Your task to perform on an android device: check battery use Image 0: 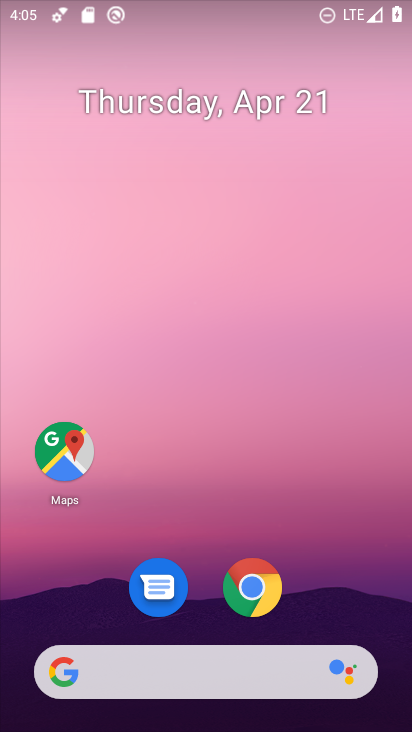
Step 0: drag from (339, 580) to (311, 10)
Your task to perform on an android device: check battery use Image 1: 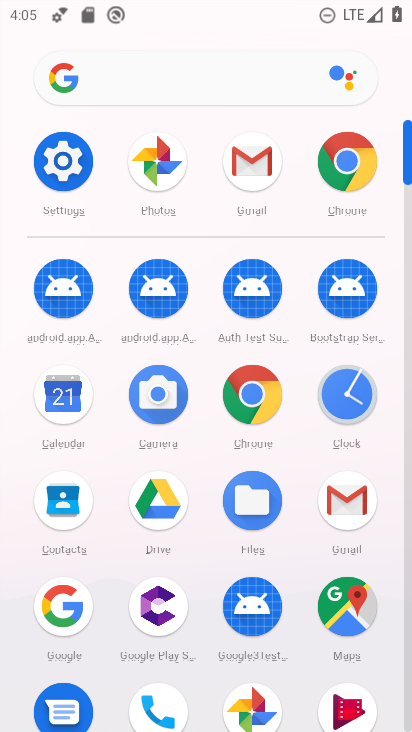
Step 1: click (56, 190)
Your task to perform on an android device: check battery use Image 2: 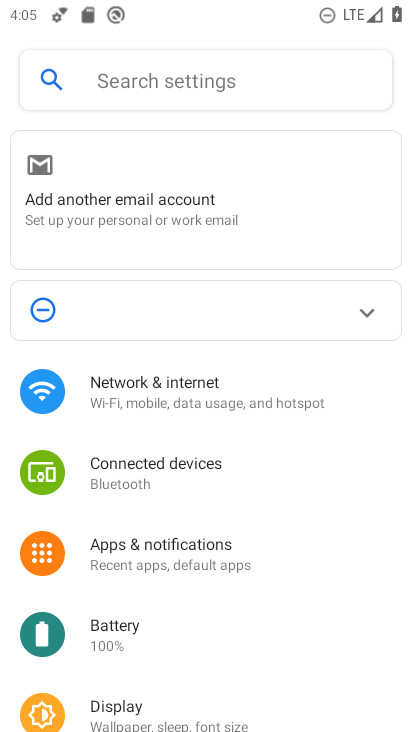
Step 2: click (119, 643)
Your task to perform on an android device: check battery use Image 3: 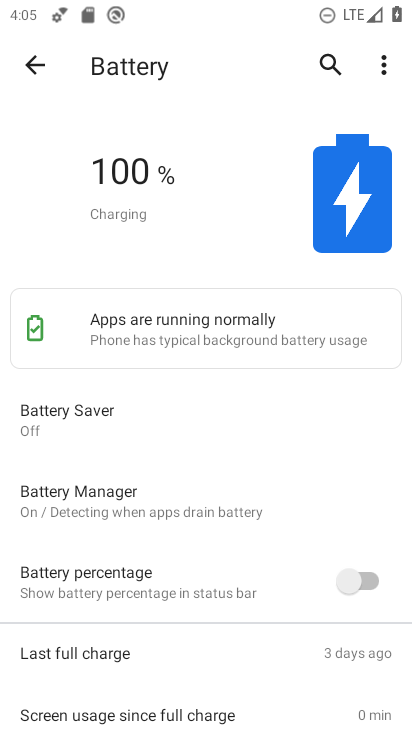
Step 3: click (385, 61)
Your task to perform on an android device: check battery use Image 4: 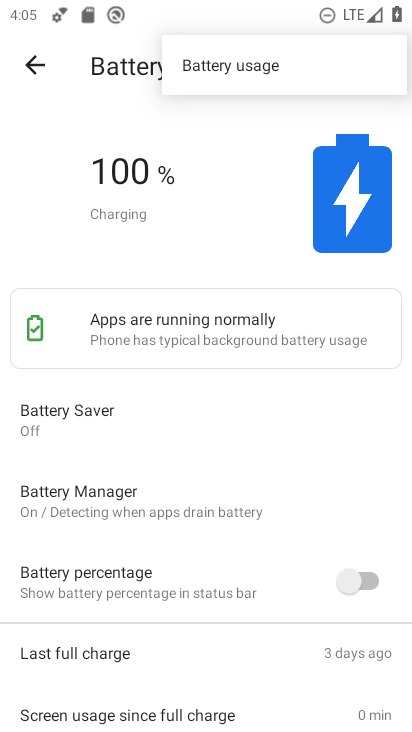
Step 4: click (247, 69)
Your task to perform on an android device: check battery use Image 5: 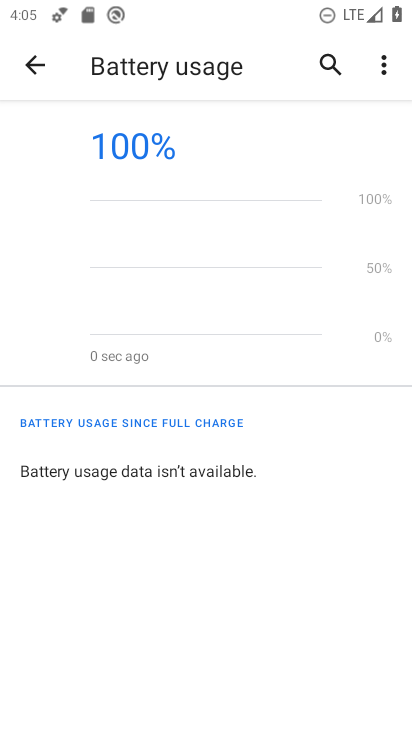
Step 5: task complete